Your task to perform on an android device: Open location settings Image 0: 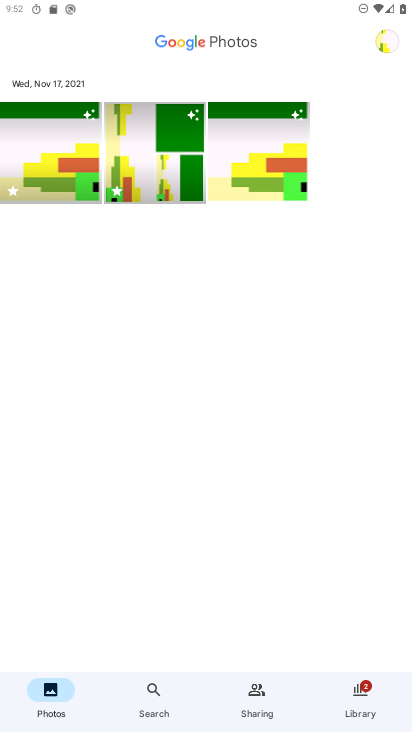
Step 0: press home button
Your task to perform on an android device: Open location settings Image 1: 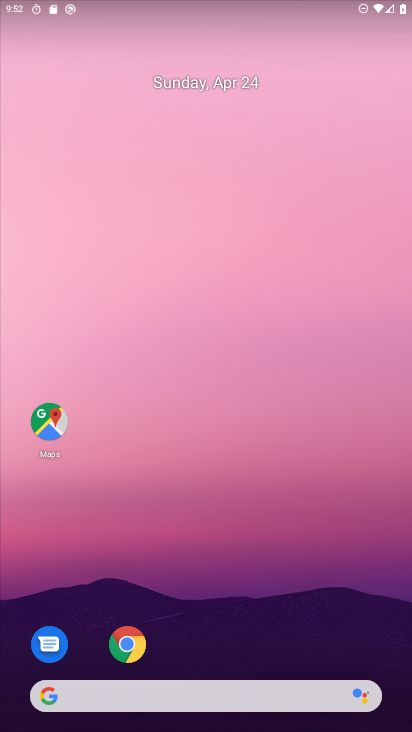
Step 1: drag from (230, 670) to (246, 42)
Your task to perform on an android device: Open location settings Image 2: 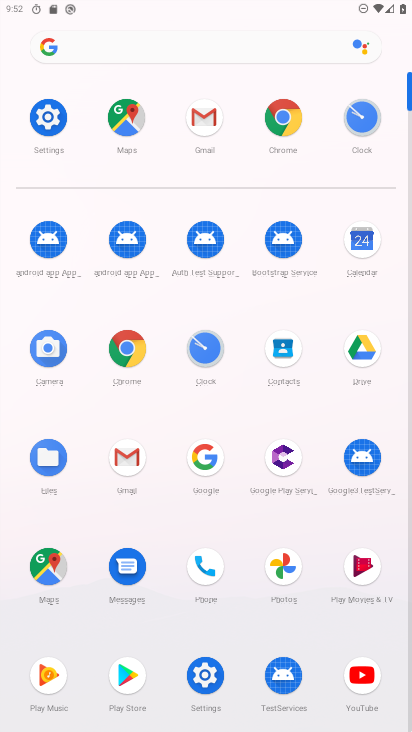
Step 2: click (49, 118)
Your task to perform on an android device: Open location settings Image 3: 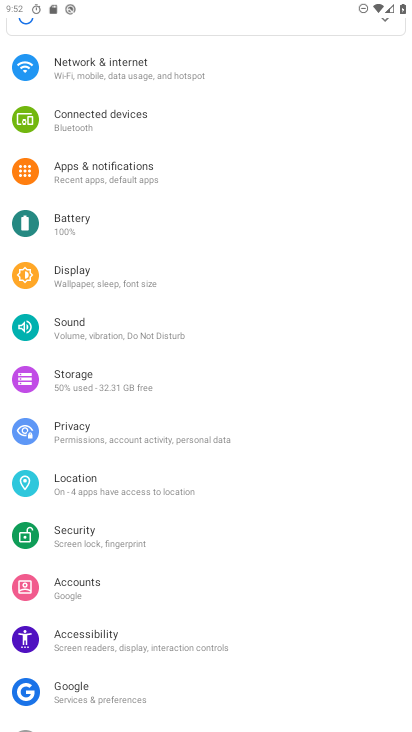
Step 3: click (70, 482)
Your task to perform on an android device: Open location settings Image 4: 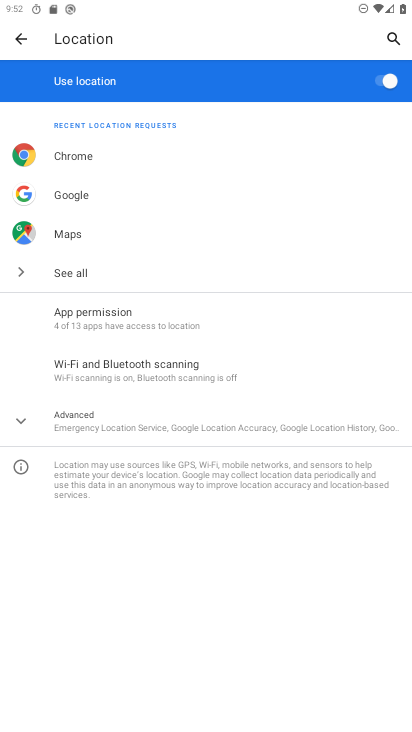
Step 4: click (86, 406)
Your task to perform on an android device: Open location settings Image 5: 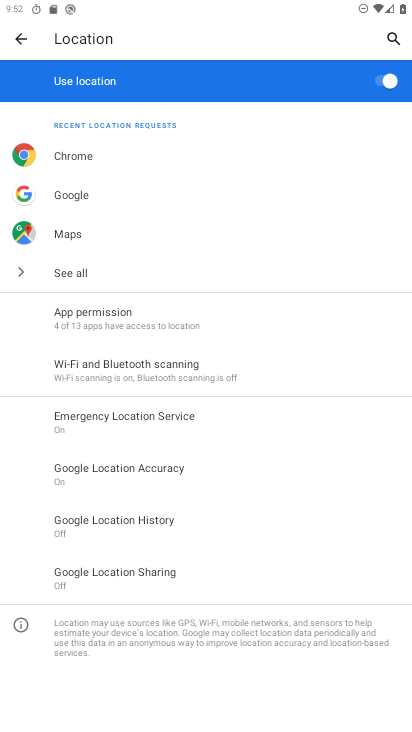
Step 5: task complete